Your task to perform on an android device: turn vacation reply on in the gmail app Image 0: 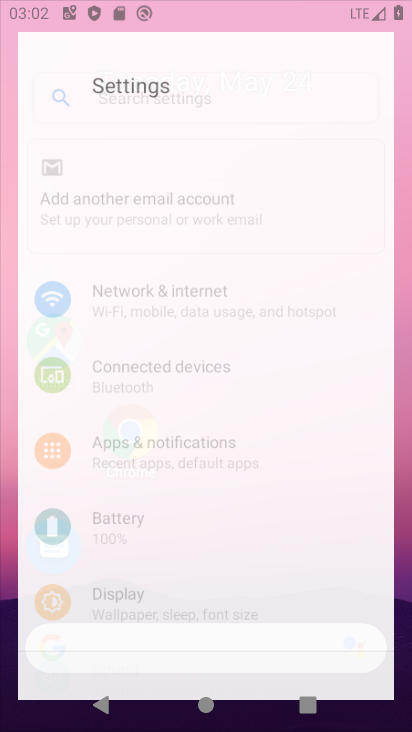
Step 0: drag from (207, 564) to (353, 0)
Your task to perform on an android device: turn vacation reply on in the gmail app Image 1: 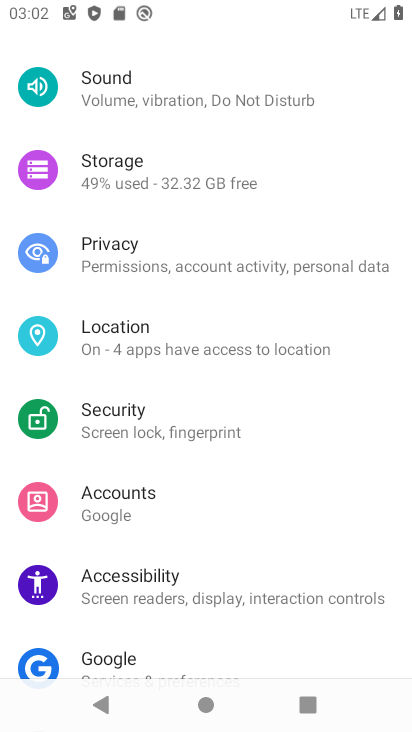
Step 1: drag from (203, 593) to (286, 241)
Your task to perform on an android device: turn vacation reply on in the gmail app Image 2: 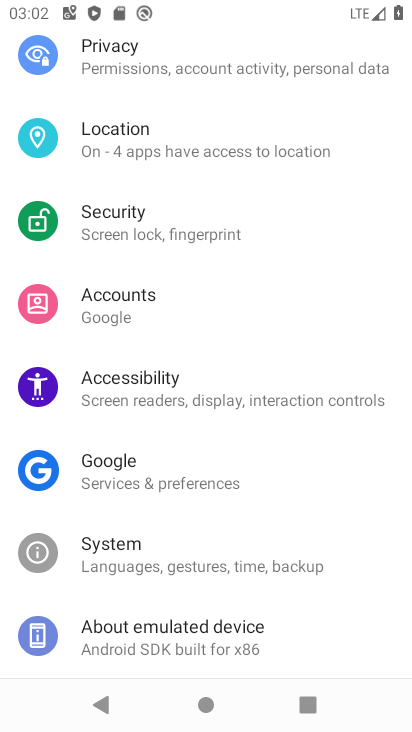
Step 2: drag from (184, 136) to (252, 542)
Your task to perform on an android device: turn vacation reply on in the gmail app Image 3: 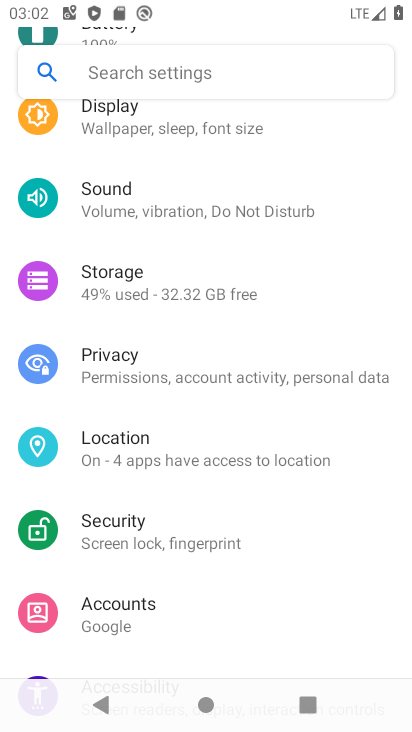
Step 3: drag from (162, 145) to (284, 587)
Your task to perform on an android device: turn vacation reply on in the gmail app Image 4: 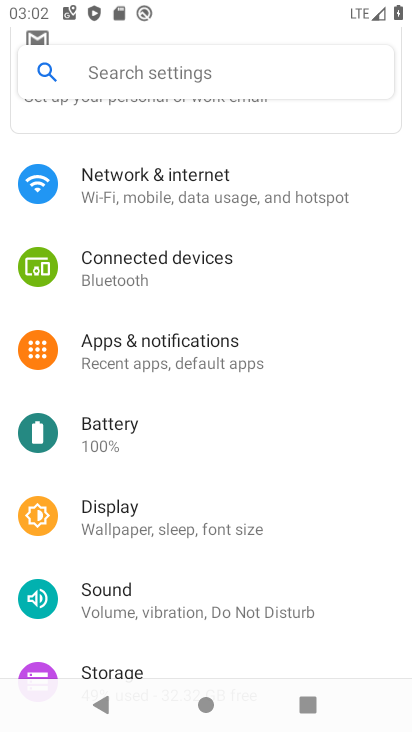
Step 4: press home button
Your task to perform on an android device: turn vacation reply on in the gmail app Image 5: 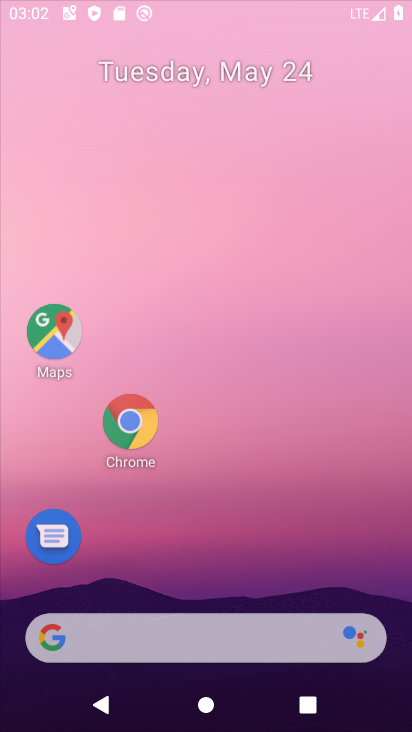
Step 5: drag from (71, 642) to (188, 160)
Your task to perform on an android device: turn vacation reply on in the gmail app Image 6: 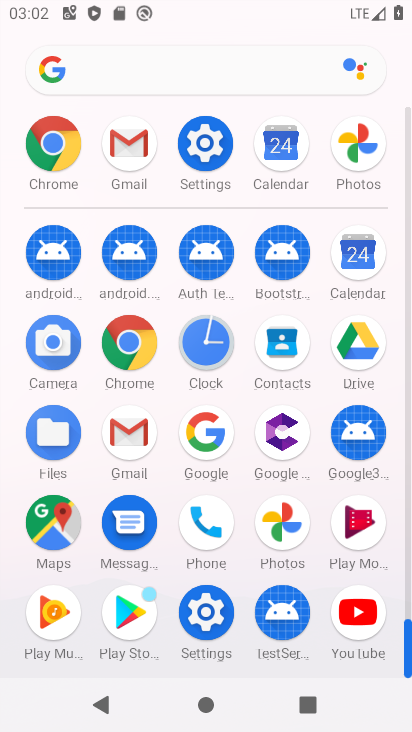
Step 6: drag from (202, 519) to (324, 12)
Your task to perform on an android device: turn vacation reply on in the gmail app Image 7: 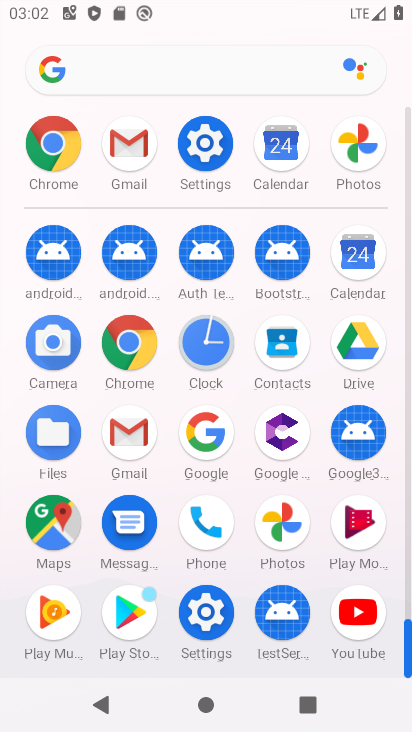
Step 7: click (126, 426)
Your task to perform on an android device: turn vacation reply on in the gmail app Image 8: 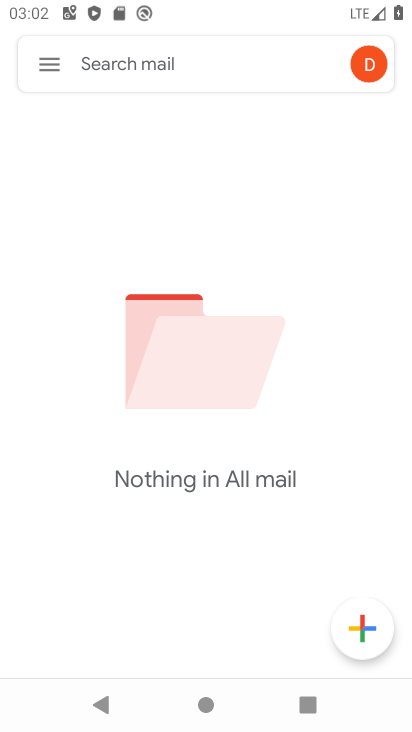
Step 8: drag from (186, 523) to (304, 42)
Your task to perform on an android device: turn vacation reply on in the gmail app Image 9: 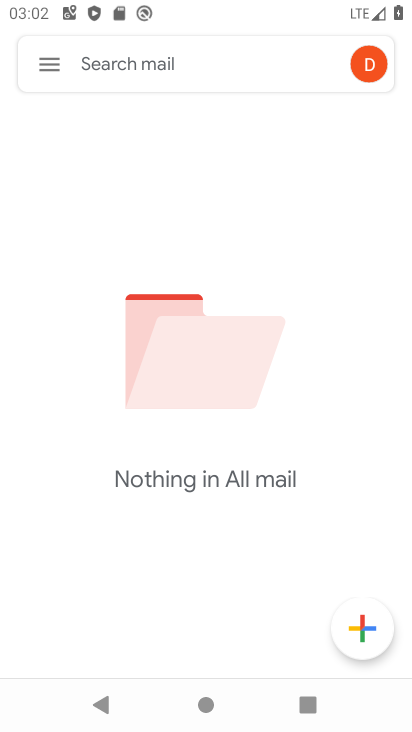
Step 9: drag from (215, 339) to (298, 49)
Your task to perform on an android device: turn vacation reply on in the gmail app Image 10: 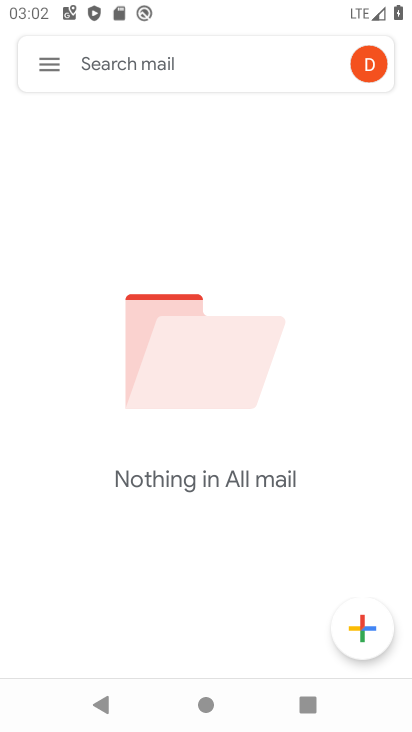
Step 10: click (46, 74)
Your task to perform on an android device: turn vacation reply on in the gmail app Image 11: 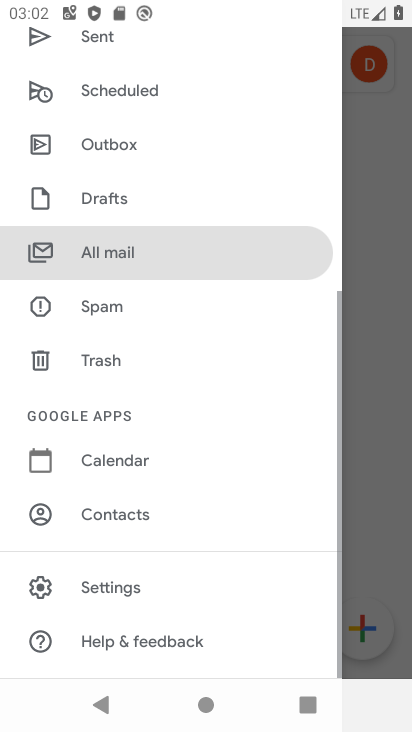
Step 11: drag from (136, 549) to (247, 118)
Your task to perform on an android device: turn vacation reply on in the gmail app Image 12: 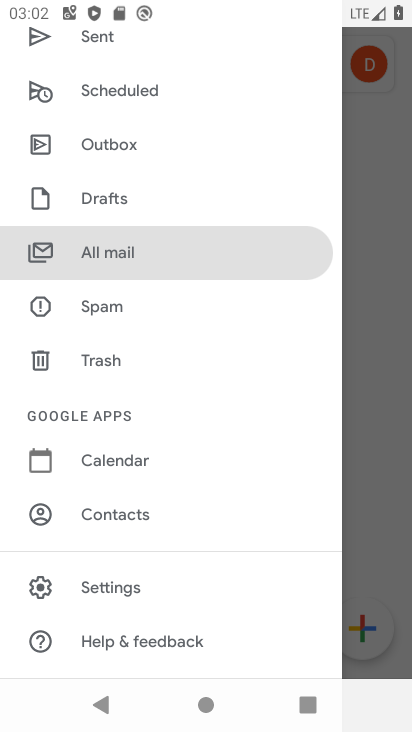
Step 12: click (116, 584)
Your task to perform on an android device: turn vacation reply on in the gmail app Image 13: 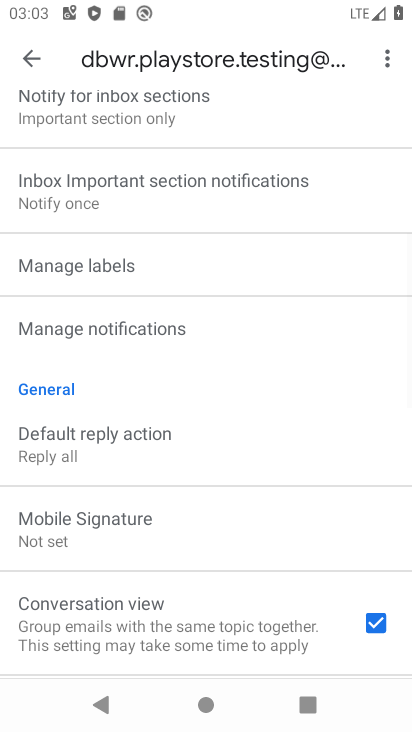
Step 13: drag from (149, 447) to (202, 256)
Your task to perform on an android device: turn vacation reply on in the gmail app Image 14: 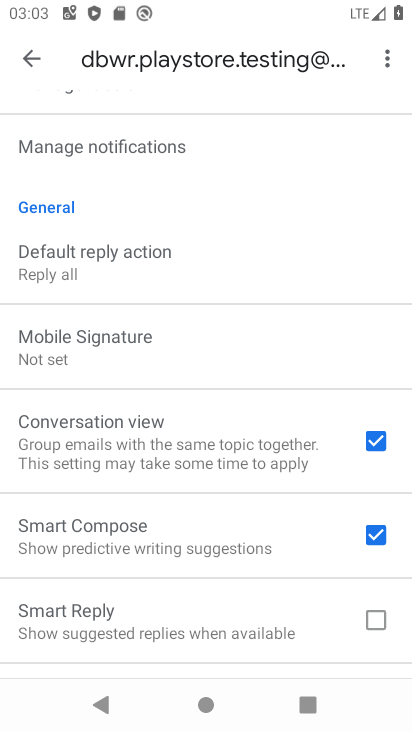
Step 14: drag from (180, 596) to (248, 192)
Your task to perform on an android device: turn vacation reply on in the gmail app Image 15: 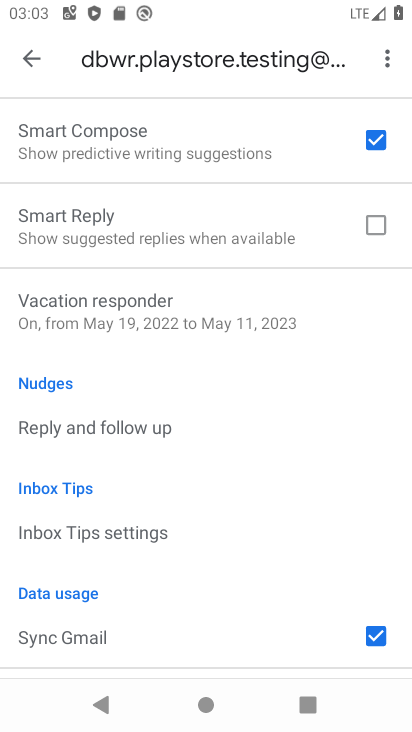
Step 15: click (139, 301)
Your task to perform on an android device: turn vacation reply on in the gmail app Image 16: 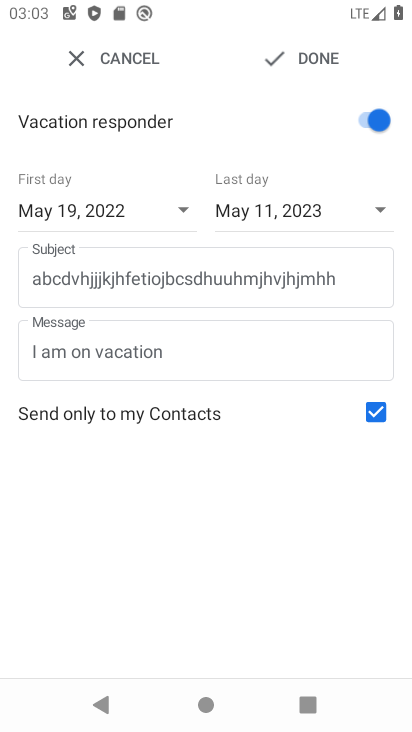
Step 16: click (317, 53)
Your task to perform on an android device: turn vacation reply on in the gmail app Image 17: 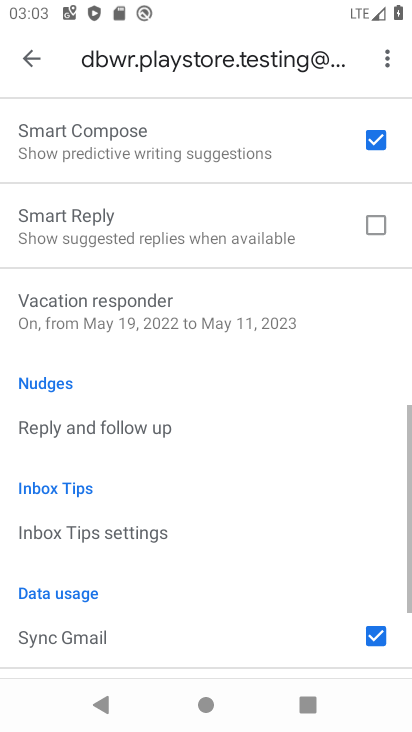
Step 17: task complete